Your task to perform on an android device: turn on bluetooth scan Image 0: 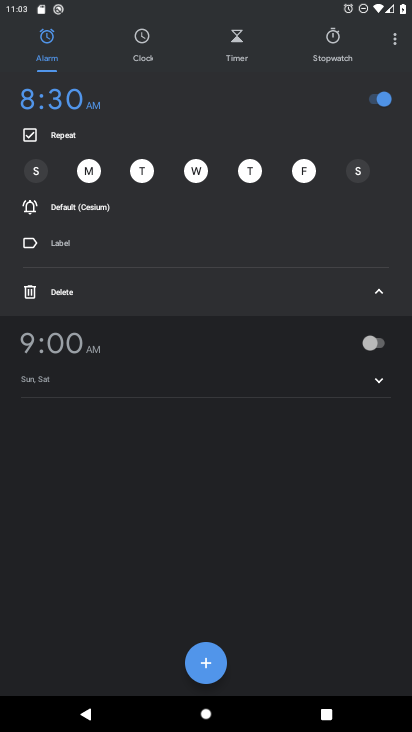
Step 0: press home button
Your task to perform on an android device: turn on bluetooth scan Image 1: 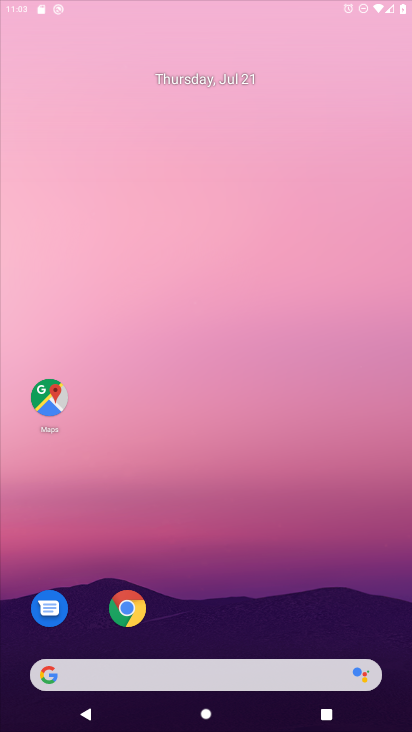
Step 1: drag from (394, 671) to (211, 68)
Your task to perform on an android device: turn on bluetooth scan Image 2: 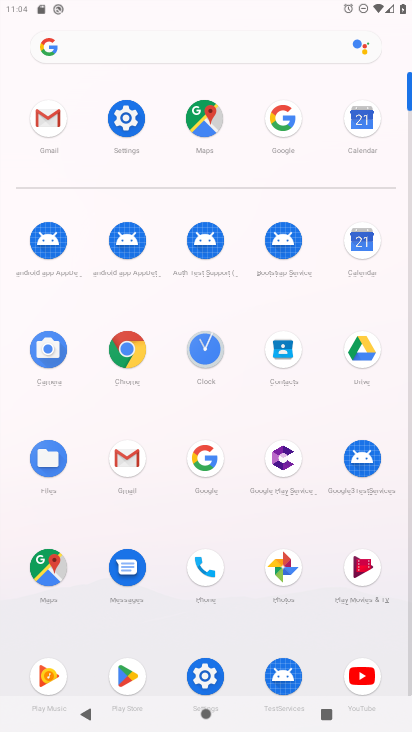
Step 2: click (212, 664)
Your task to perform on an android device: turn on bluetooth scan Image 3: 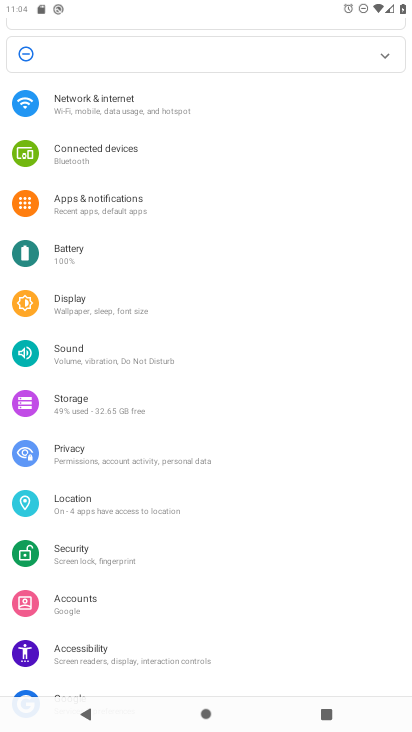
Step 3: click (84, 489)
Your task to perform on an android device: turn on bluetooth scan Image 4: 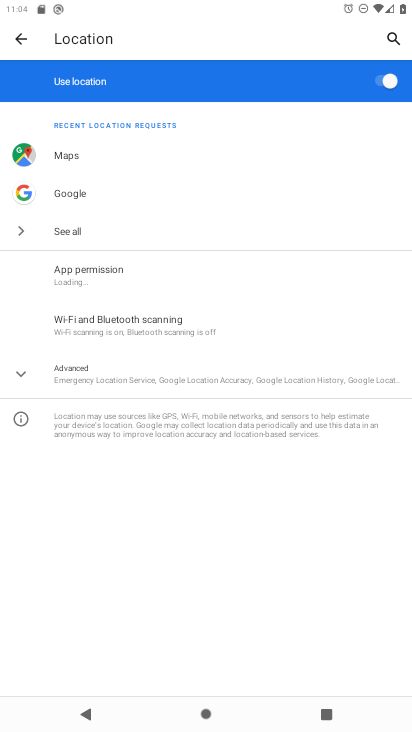
Step 4: click (95, 315)
Your task to perform on an android device: turn on bluetooth scan Image 5: 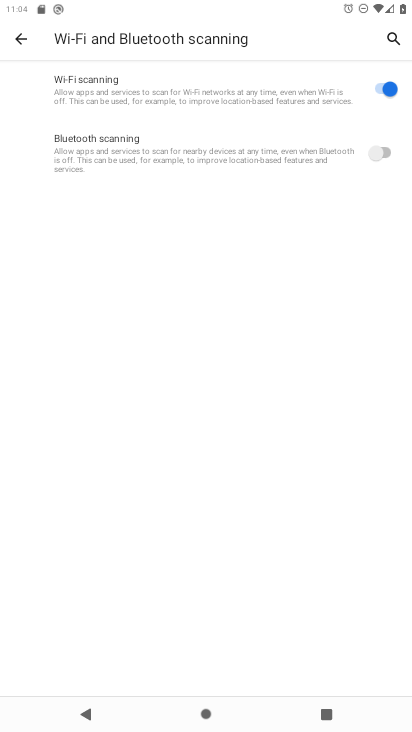
Step 5: click (378, 163)
Your task to perform on an android device: turn on bluetooth scan Image 6: 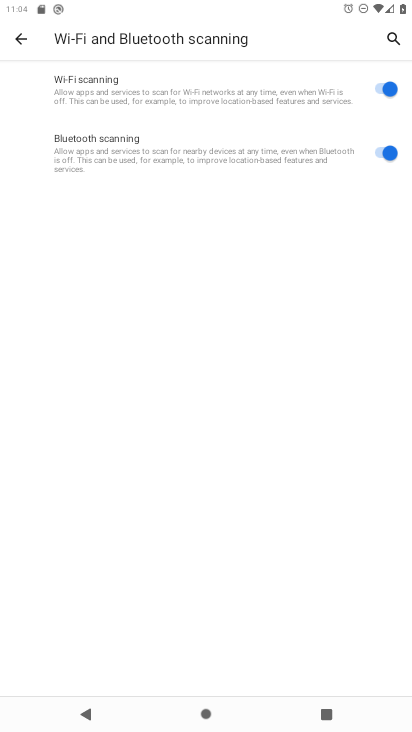
Step 6: task complete